Your task to perform on an android device: turn notification dots off Image 0: 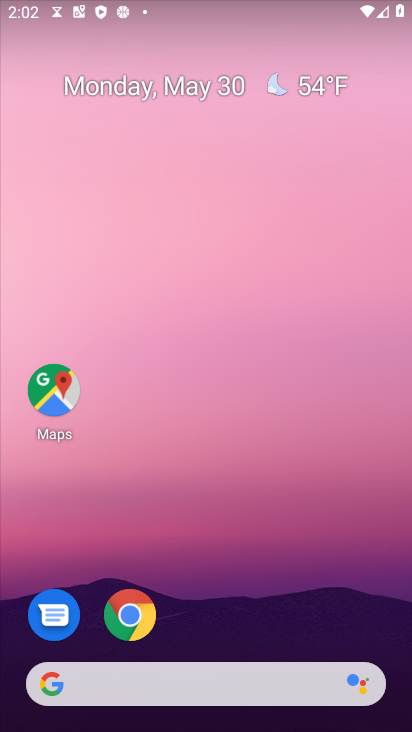
Step 0: drag from (353, 559) to (357, 103)
Your task to perform on an android device: turn notification dots off Image 1: 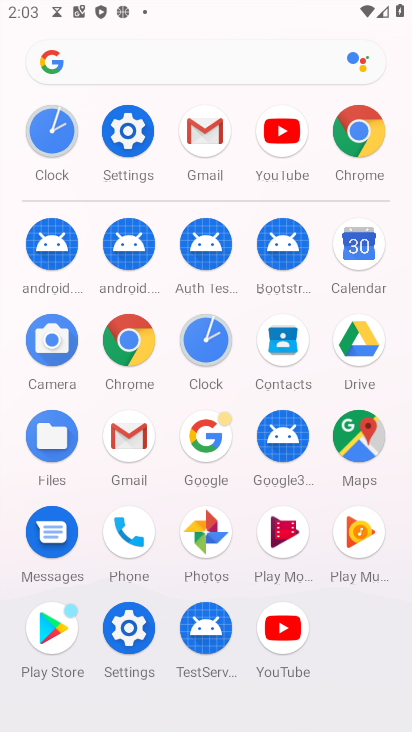
Step 1: click (124, 141)
Your task to perform on an android device: turn notification dots off Image 2: 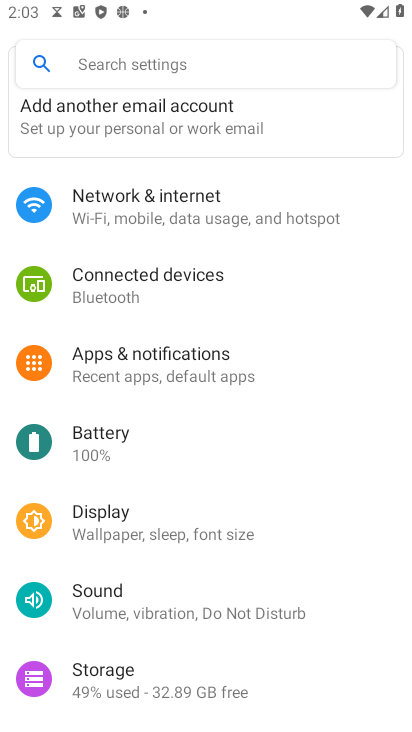
Step 2: click (212, 359)
Your task to perform on an android device: turn notification dots off Image 3: 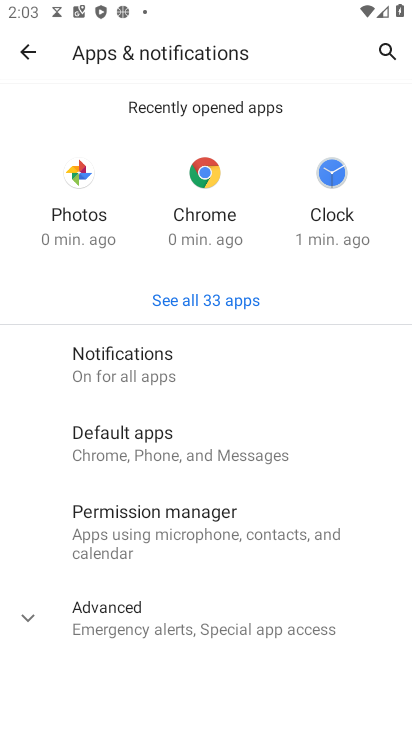
Step 3: drag from (198, 606) to (199, 255)
Your task to perform on an android device: turn notification dots off Image 4: 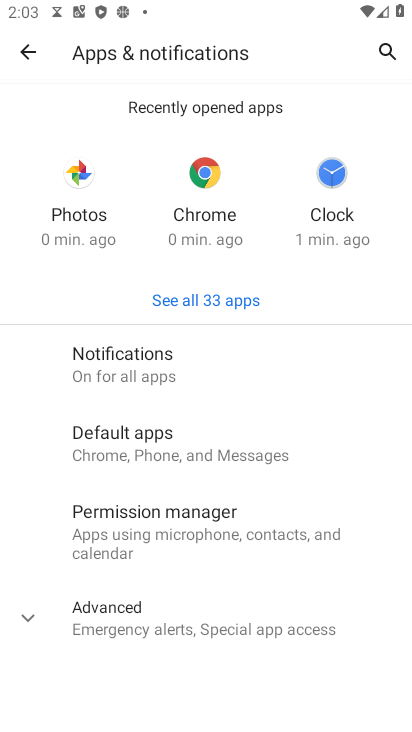
Step 4: click (155, 622)
Your task to perform on an android device: turn notification dots off Image 5: 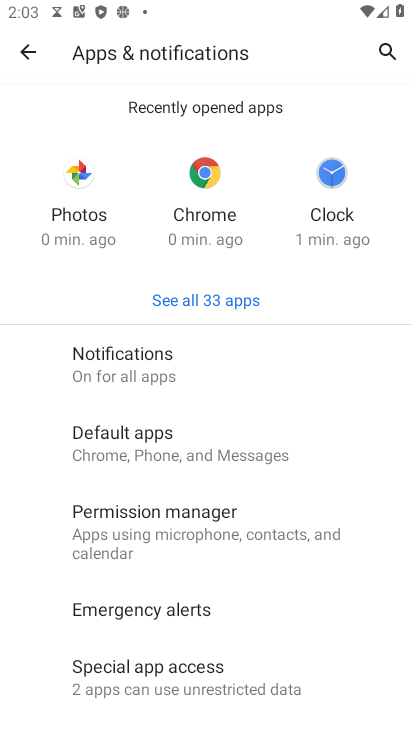
Step 5: click (92, 358)
Your task to perform on an android device: turn notification dots off Image 6: 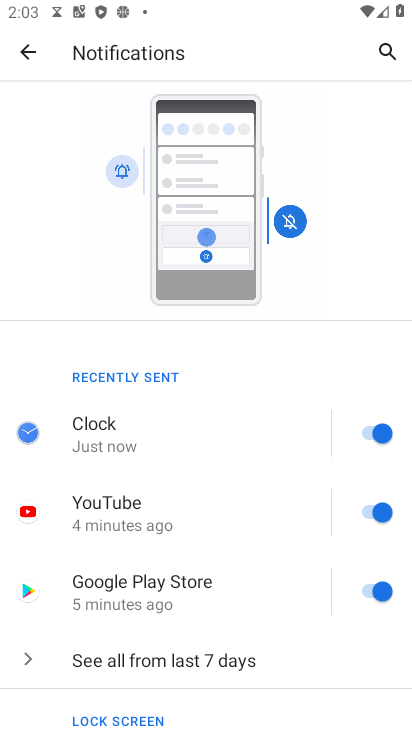
Step 6: drag from (210, 629) to (188, 207)
Your task to perform on an android device: turn notification dots off Image 7: 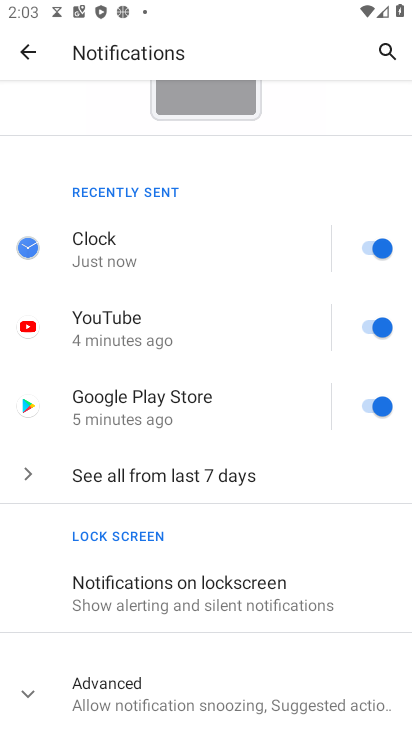
Step 7: drag from (197, 562) to (195, 350)
Your task to perform on an android device: turn notification dots off Image 8: 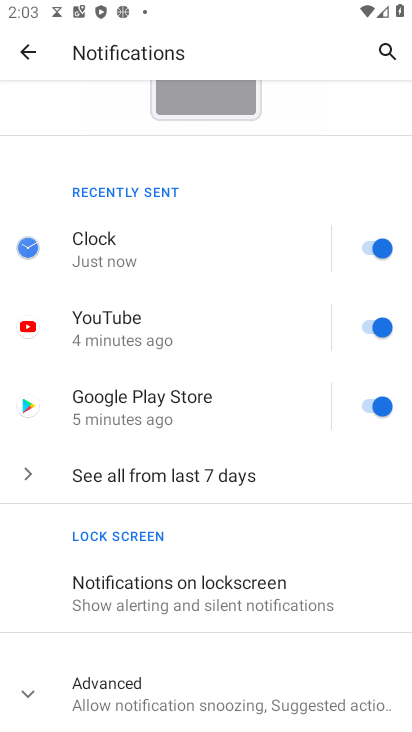
Step 8: click (166, 689)
Your task to perform on an android device: turn notification dots off Image 9: 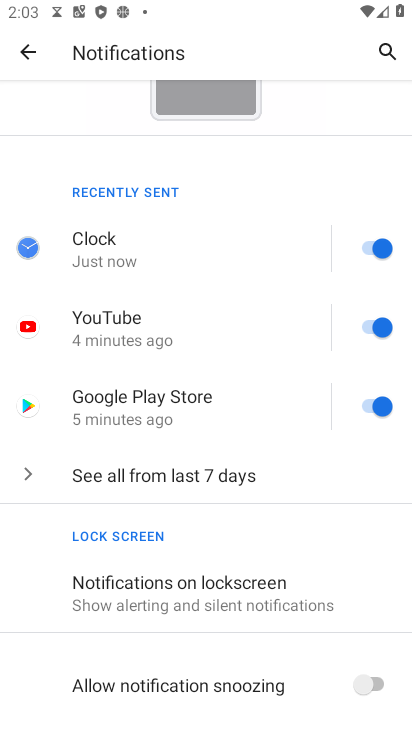
Step 9: drag from (260, 550) to (193, 231)
Your task to perform on an android device: turn notification dots off Image 10: 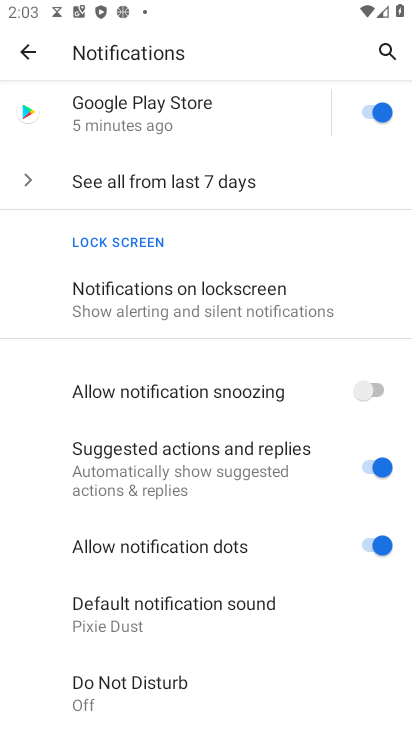
Step 10: click (388, 564)
Your task to perform on an android device: turn notification dots off Image 11: 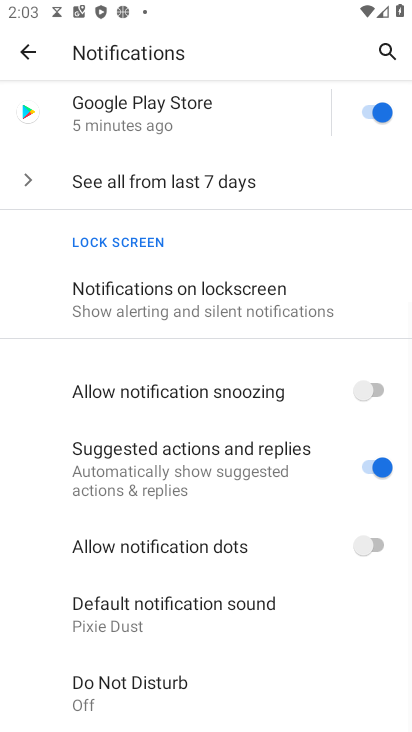
Step 11: task complete